Your task to perform on an android device: toggle priority inbox in the gmail app Image 0: 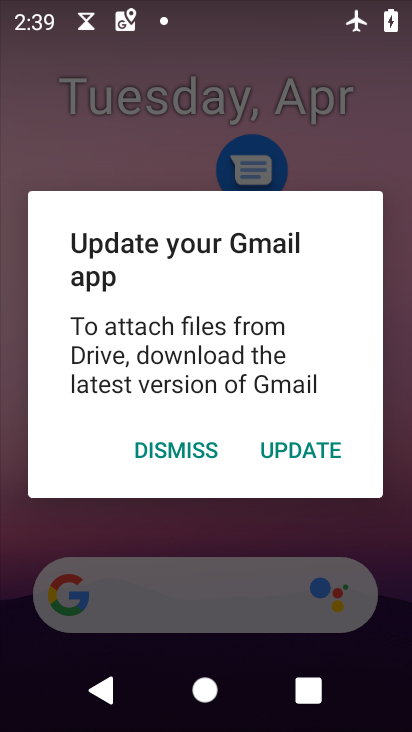
Step 0: press home button
Your task to perform on an android device: toggle priority inbox in the gmail app Image 1: 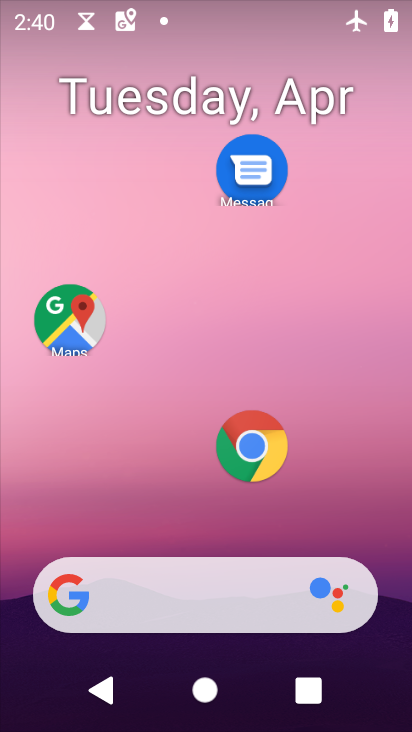
Step 1: drag from (183, 488) to (193, 23)
Your task to perform on an android device: toggle priority inbox in the gmail app Image 2: 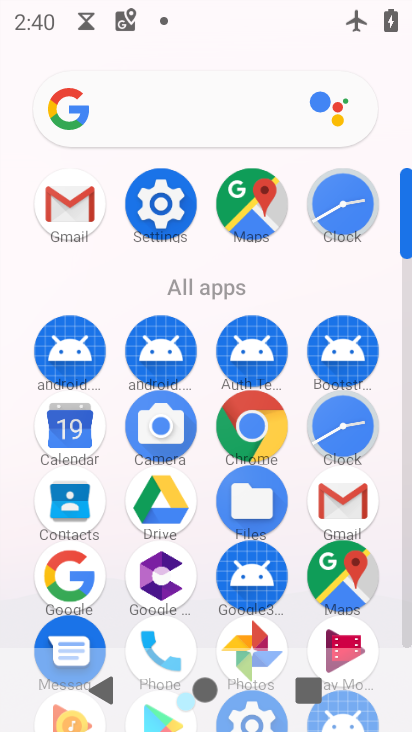
Step 2: click (53, 212)
Your task to perform on an android device: toggle priority inbox in the gmail app Image 3: 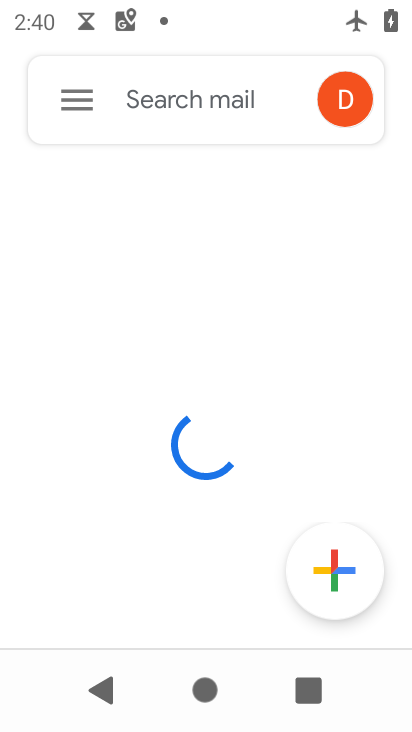
Step 3: click (76, 95)
Your task to perform on an android device: toggle priority inbox in the gmail app Image 4: 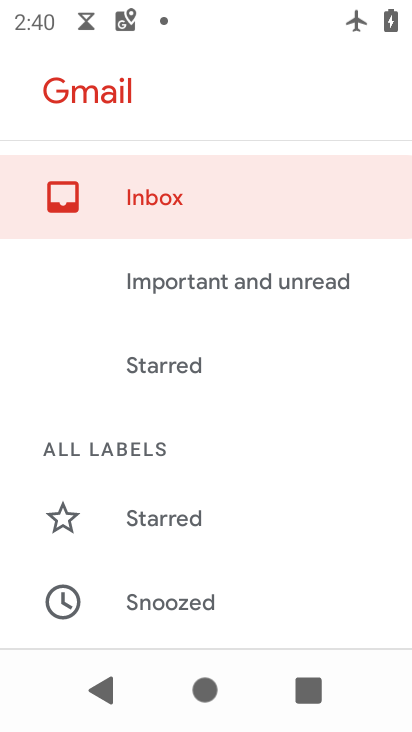
Step 4: click (178, 454)
Your task to perform on an android device: toggle priority inbox in the gmail app Image 5: 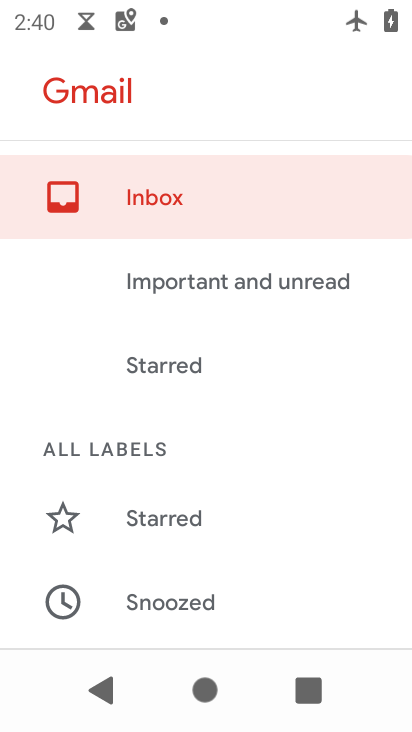
Step 5: drag from (179, 570) to (207, 112)
Your task to perform on an android device: toggle priority inbox in the gmail app Image 6: 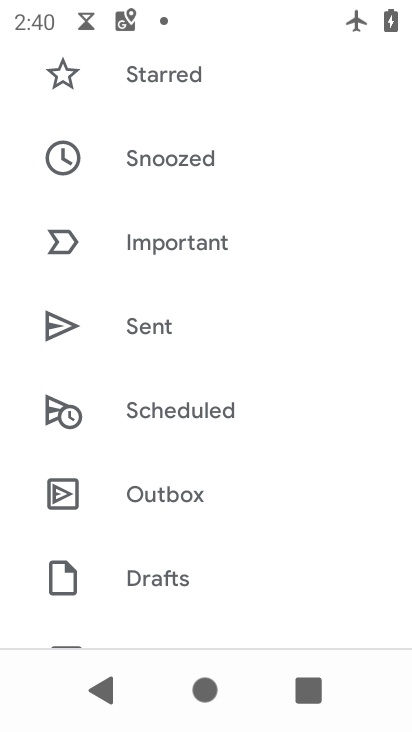
Step 6: drag from (196, 513) to (226, 144)
Your task to perform on an android device: toggle priority inbox in the gmail app Image 7: 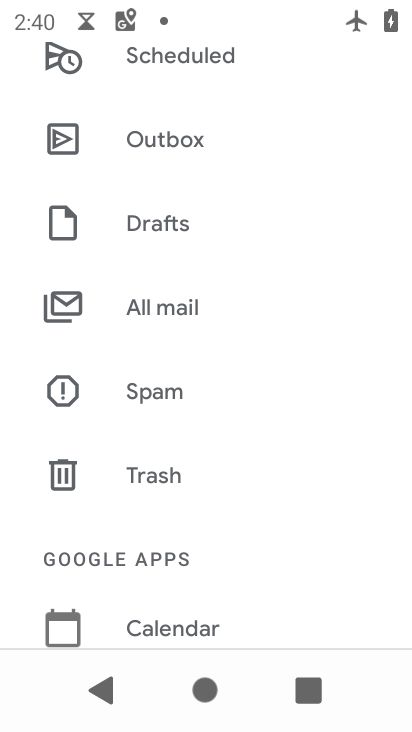
Step 7: drag from (177, 567) to (205, 122)
Your task to perform on an android device: toggle priority inbox in the gmail app Image 8: 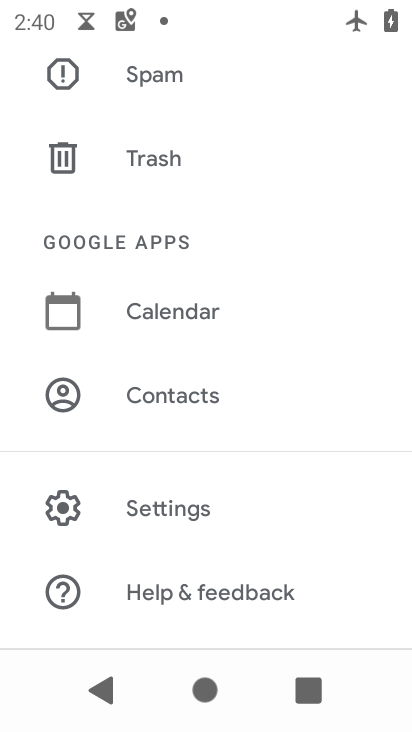
Step 8: click (170, 505)
Your task to perform on an android device: toggle priority inbox in the gmail app Image 9: 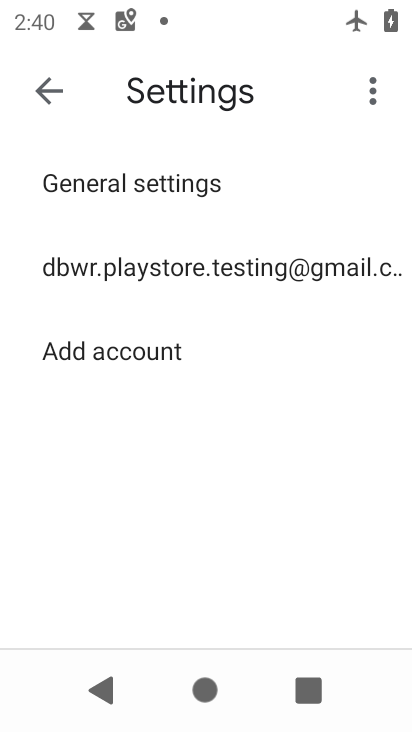
Step 9: click (134, 277)
Your task to perform on an android device: toggle priority inbox in the gmail app Image 10: 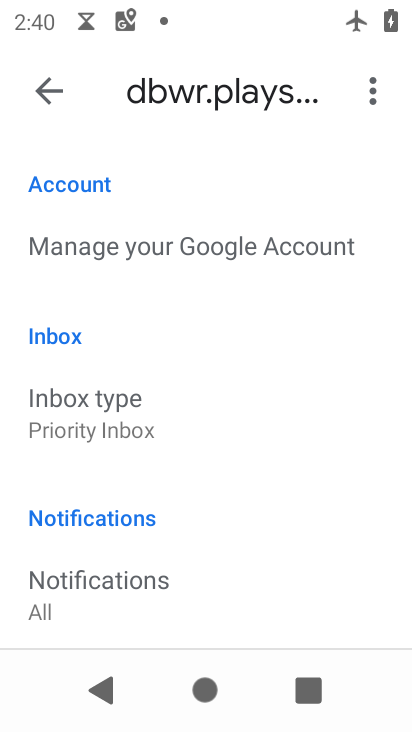
Step 10: click (134, 411)
Your task to perform on an android device: toggle priority inbox in the gmail app Image 11: 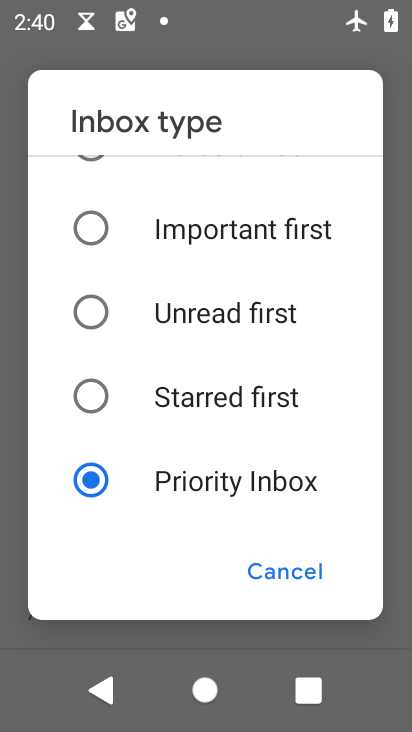
Step 11: click (238, 481)
Your task to perform on an android device: toggle priority inbox in the gmail app Image 12: 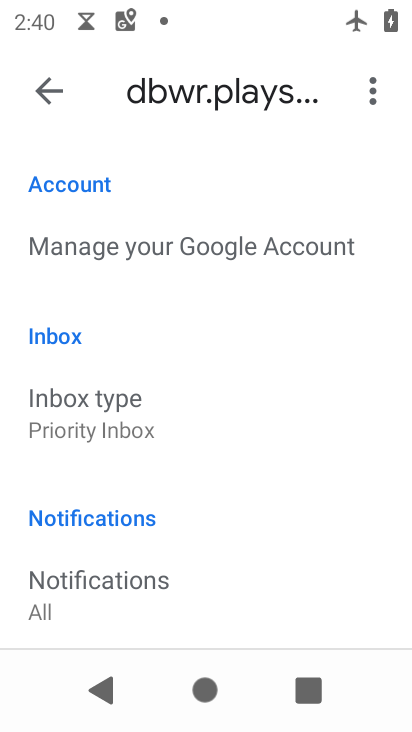
Step 12: task complete